Your task to perform on an android device: empty trash in google photos Image 0: 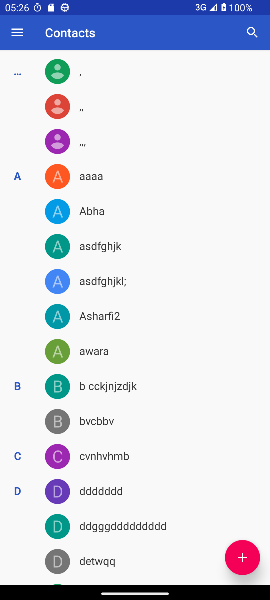
Step 0: press home button
Your task to perform on an android device: empty trash in google photos Image 1: 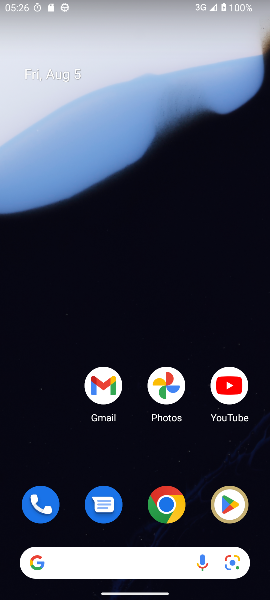
Step 1: click (165, 390)
Your task to perform on an android device: empty trash in google photos Image 2: 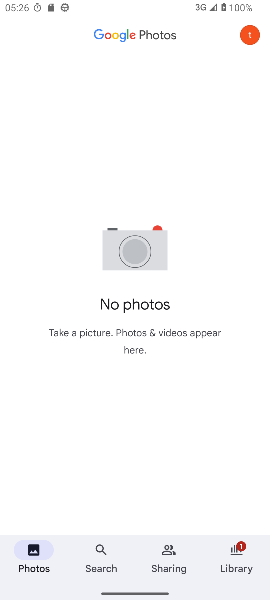
Step 2: click (106, 24)
Your task to perform on an android device: empty trash in google photos Image 3: 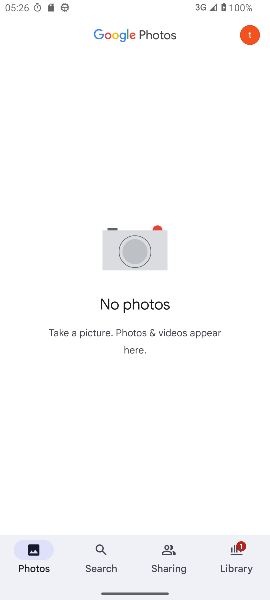
Step 3: click (126, 44)
Your task to perform on an android device: empty trash in google photos Image 4: 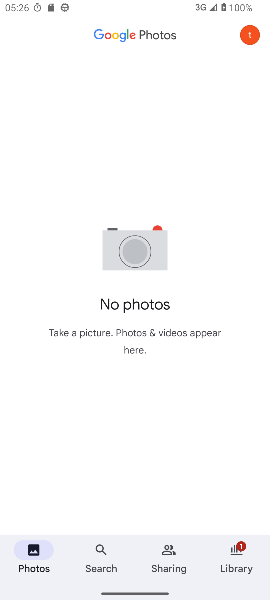
Step 4: click (244, 550)
Your task to perform on an android device: empty trash in google photos Image 5: 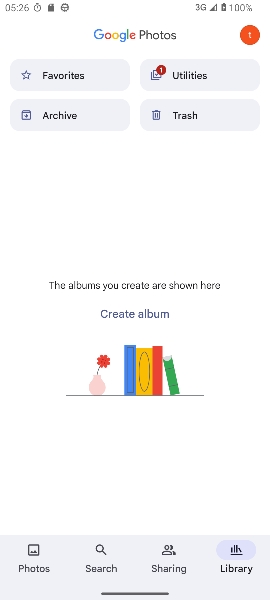
Step 5: click (38, 571)
Your task to perform on an android device: empty trash in google photos Image 6: 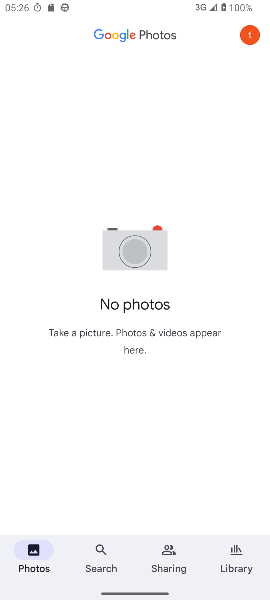
Step 6: click (152, 303)
Your task to perform on an android device: empty trash in google photos Image 7: 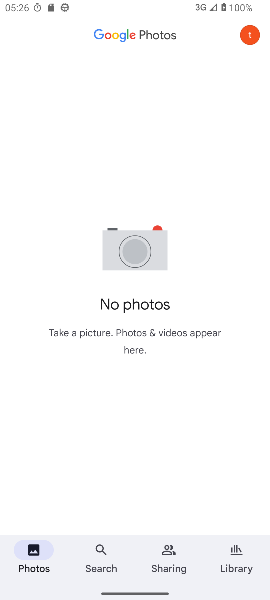
Step 7: task complete